Your task to perform on an android device: Go to calendar. Show me events next week Image 0: 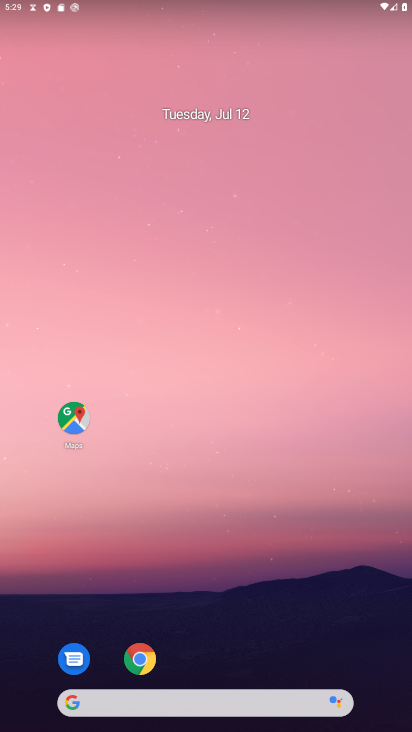
Step 0: drag from (206, 642) to (250, 145)
Your task to perform on an android device: Go to calendar. Show me events next week Image 1: 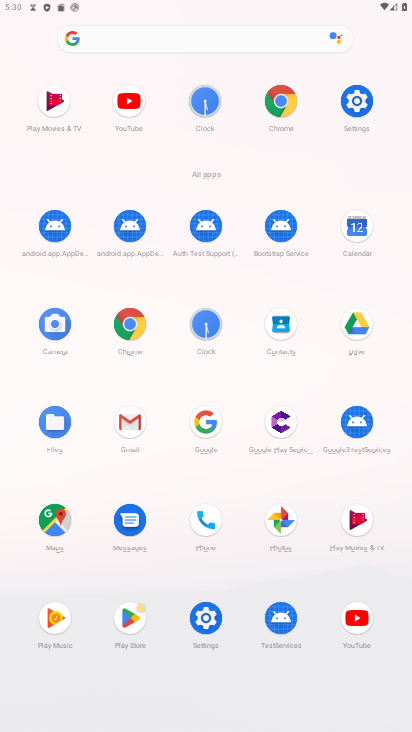
Step 1: click (364, 230)
Your task to perform on an android device: Go to calendar. Show me events next week Image 2: 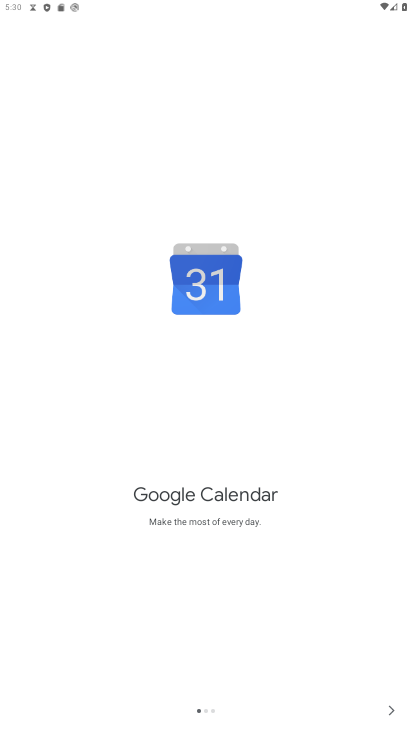
Step 2: click (383, 705)
Your task to perform on an android device: Go to calendar. Show me events next week Image 3: 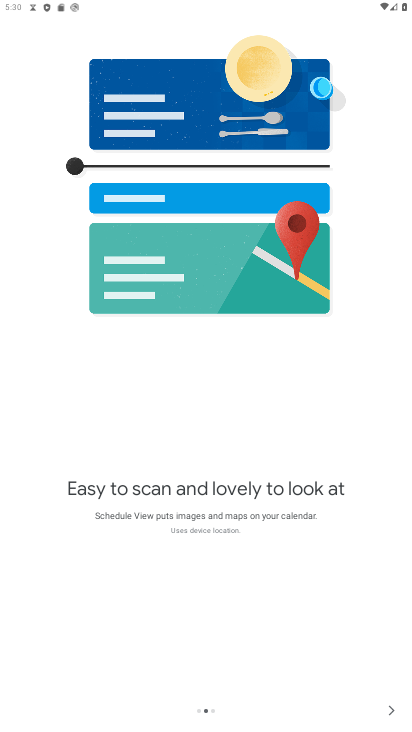
Step 3: click (384, 705)
Your task to perform on an android device: Go to calendar. Show me events next week Image 4: 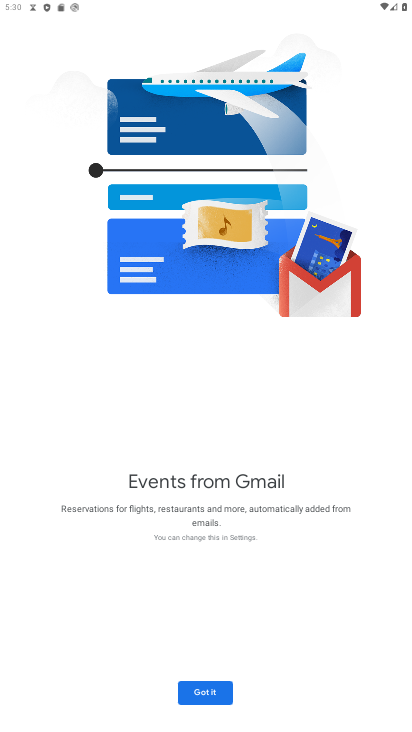
Step 4: click (208, 686)
Your task to perform on an android device: Go to calendar. Show me events next week Image 5: 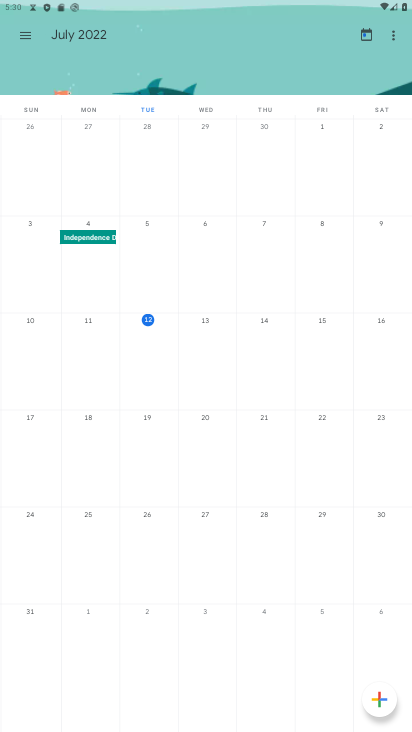
Step 5: click (16, 26)
Your task to perform on an android device: Go to calendar. Show me events next week Image 6: 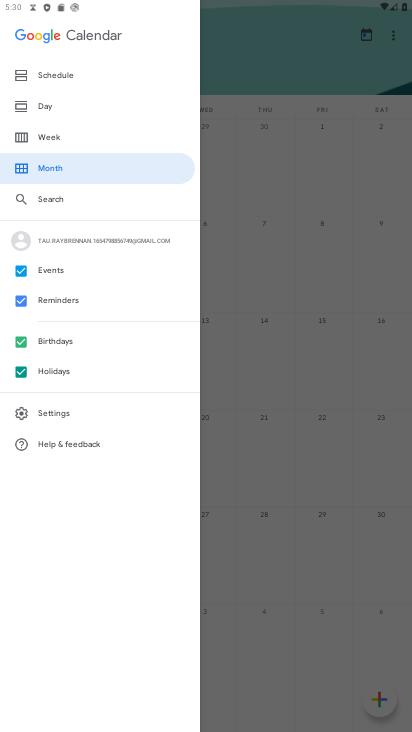
Step 6: click (61, 306)
Your task to perform on an android device: Go to calendar. Show me events next week Image 7: 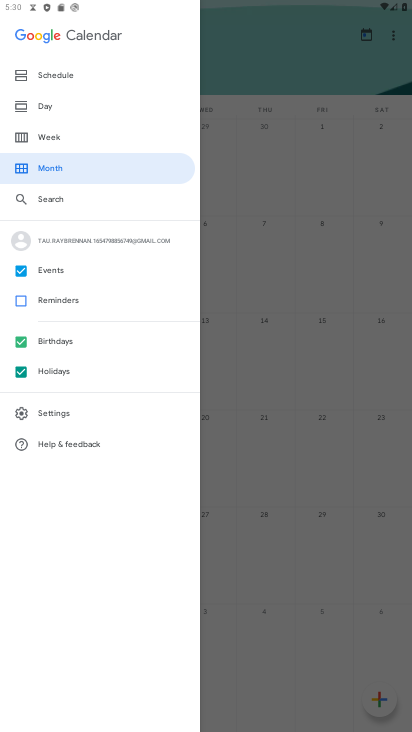
Step 7: click (59, 344)
Your task to perform on an android device: Go to calendar. Show me events next week Image 8: 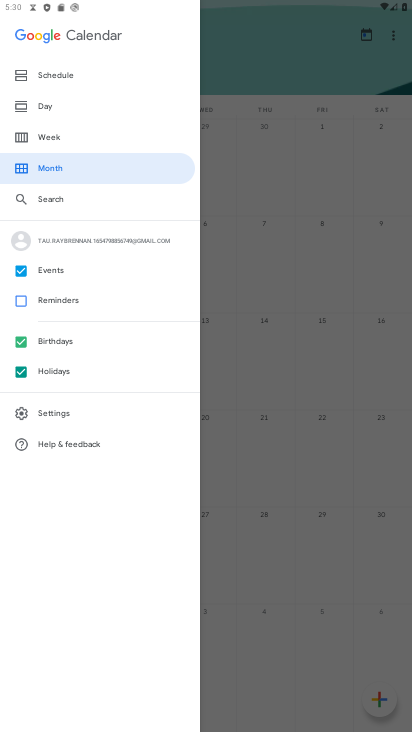
Step 8: click (62, 377)
Your task to perform on an android device: Go to calendar. Show me events next week Image 9: 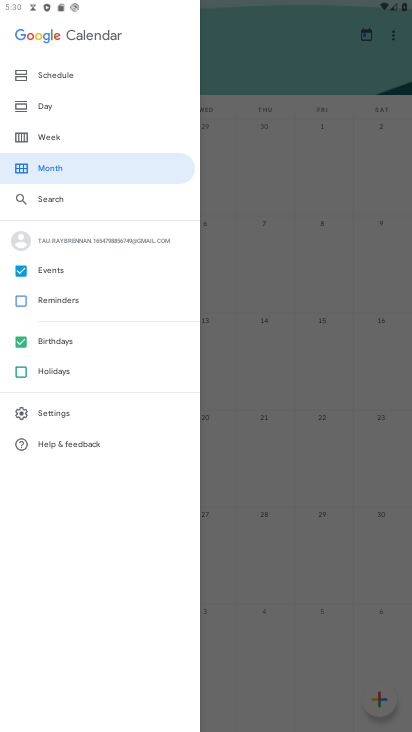
Step 9: click (63, 338)
Your task to perform on an android device: Go to calendar. Show me events next week Image 10: 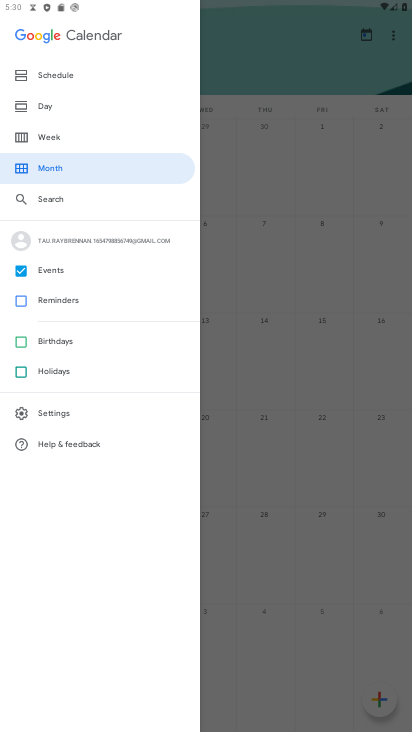
Step 10: click (61, 138)
Your task to perform on an android device: Go to calendar. Show me events next week Image 11: 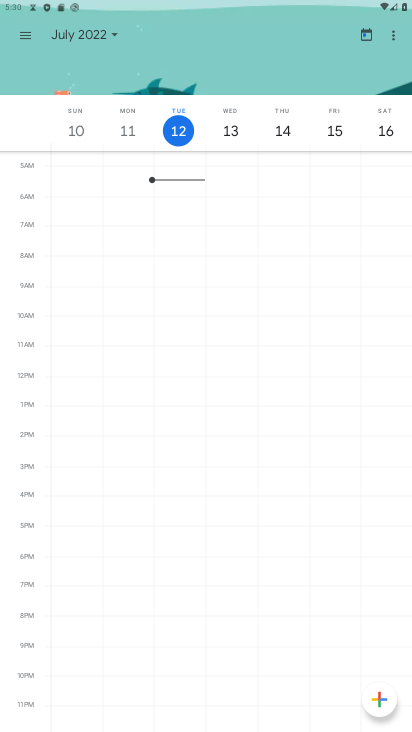
Step 11: task complete